Your task to perform on an android device: all mails in gmail Image 0: 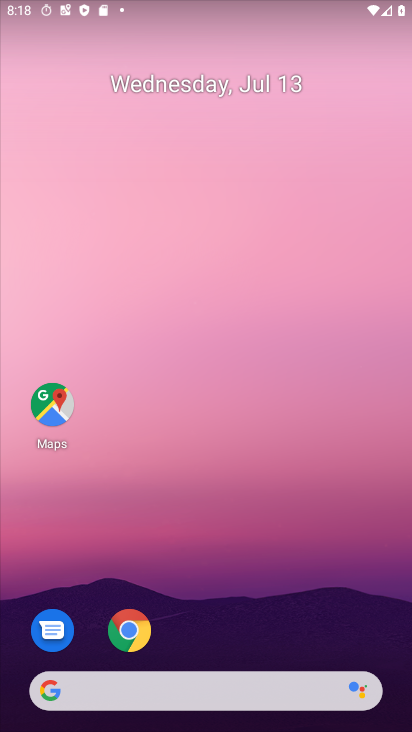
Step 0: drag from (325, 623) to (298, 199)
Your task to perform on an android device: all mails in gmail Image 1: 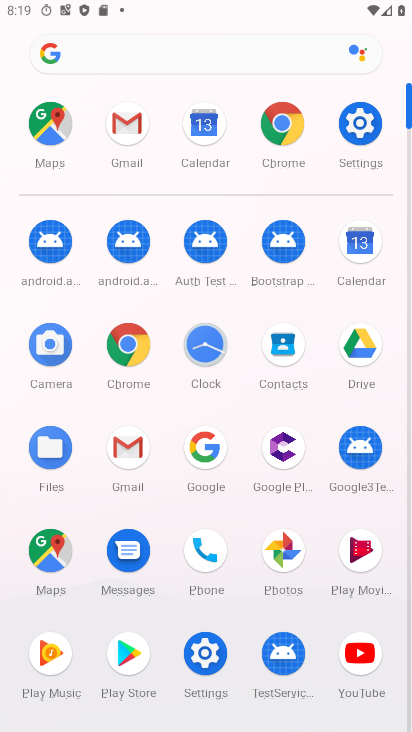
Step 1: click (127, 450)
Your task to perform on an android device: all mails in gmail Image 2: 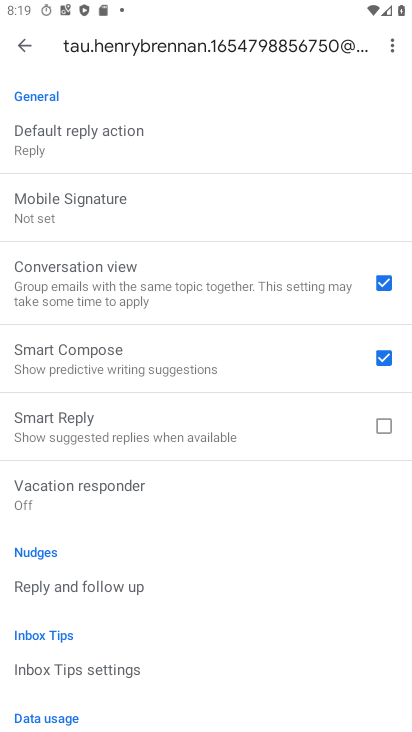
Step 2: press back button
Your task to perform on an android device: all mails in gmail Image 3: 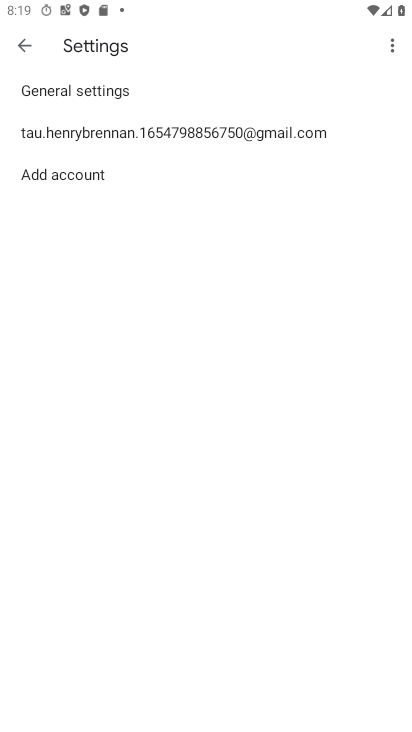
Step 3: press back button
Your task to perform on an android device: all mails in gmail Image 4: 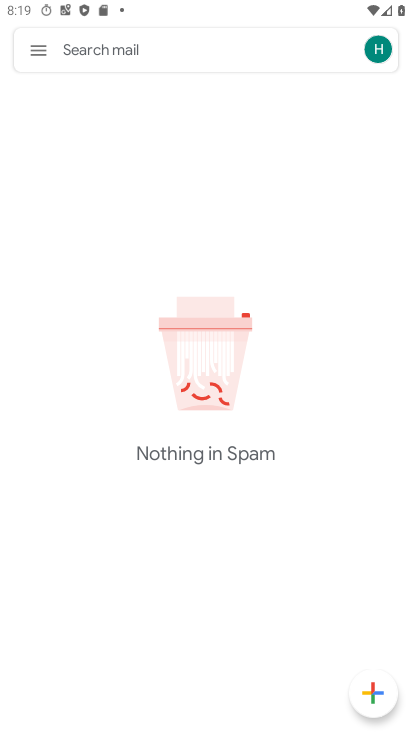
Step 4: click (35, 48)
Your task to perform on an android device: all mails in gmail Image 5: 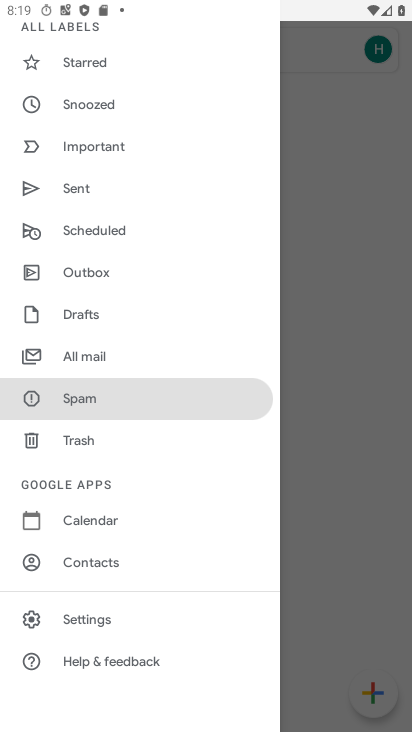
Step 5: drag from (190, 207) to (199, 374)
Your task to perform on an android device: all mails in gmail Image 6: 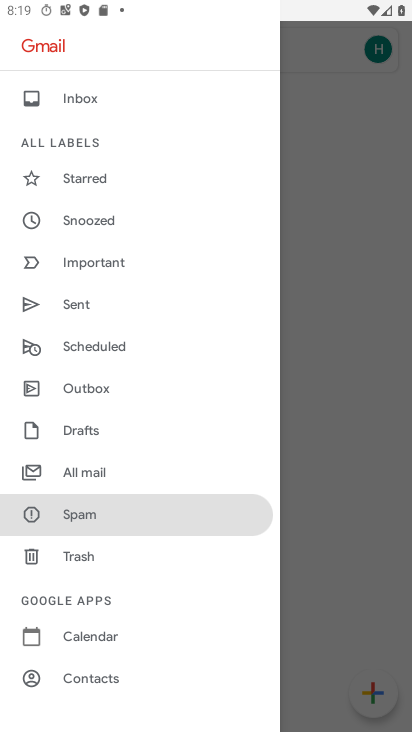
Step 6: drag from (201, 179) to (199, 345)
Your task to perform on an android device: all mails in gmail Image 7: 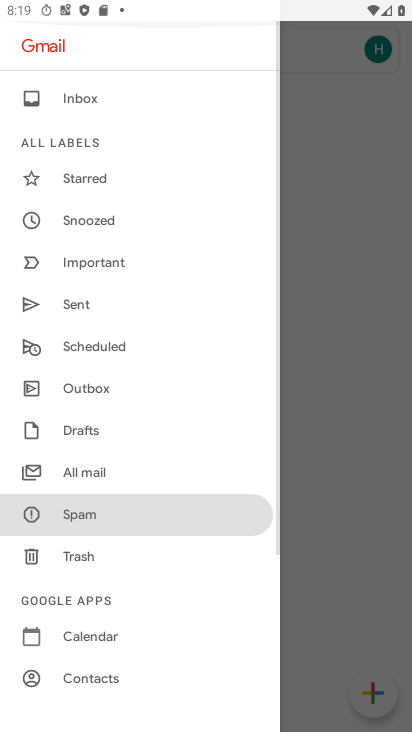
Step 7: drag from (198, 388) to (202, 310)
Your task to perform on an android device: all mails in gmail Image 8: 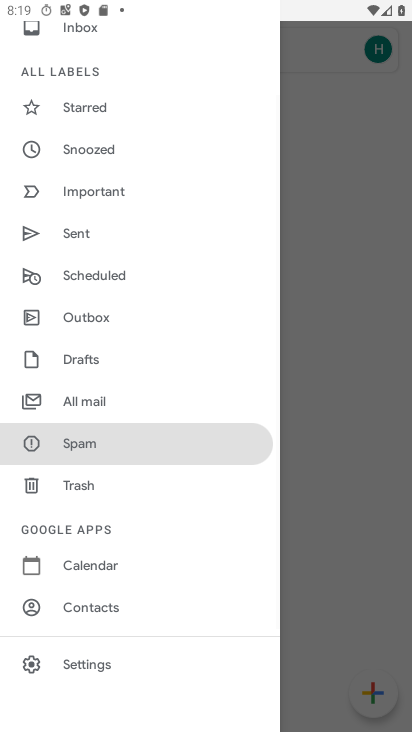
Step 8: drag from (198, 386) to (196, 284)
Your task to perform on an android device: all mails in gmail Image 9: 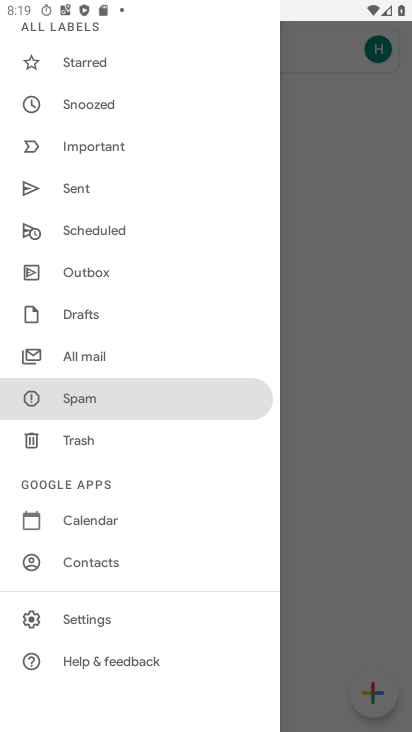
Step 9: click (143, 352)
Your task to perform on an android device: all mails in gmail Image 10: 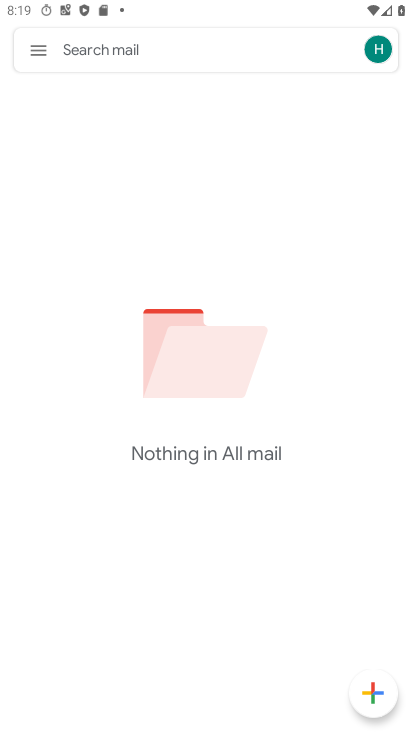
Step 10: task complete